Your task to perform on an android device: find which apps use the phone's location Image 0: 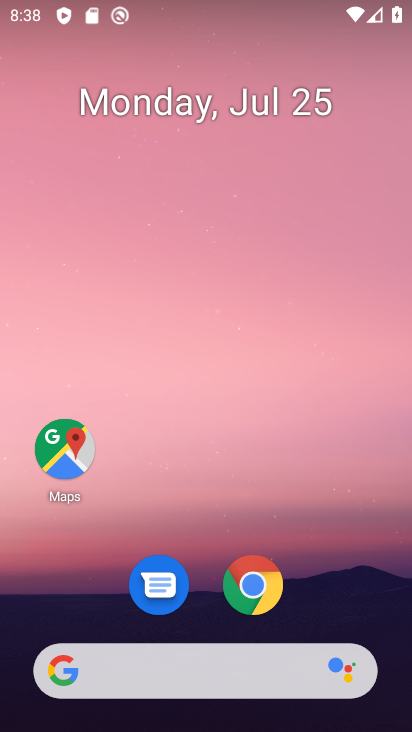
Step 0: press home button
Your task to perform on an android device: find which apps use the phone's location Image 1: 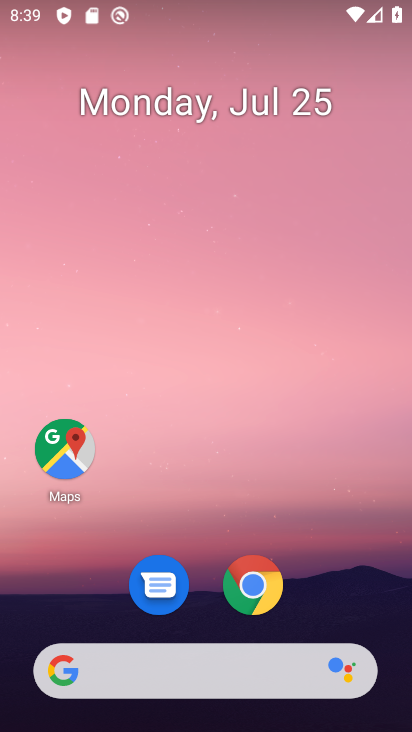
Step 1: drag from (247, 619) to (388, 179)
Your task to perform on an android device: find which apps use the phone's location Image 2: 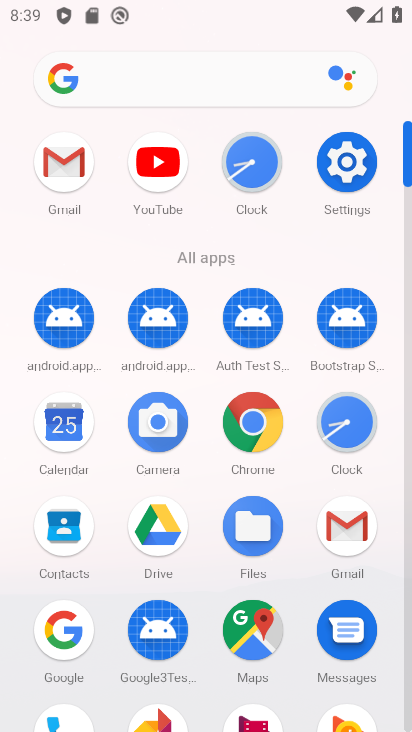
Step 2: click (348, 165)
Your task to perform on an android device: find which apps use the phone's location Image 3: 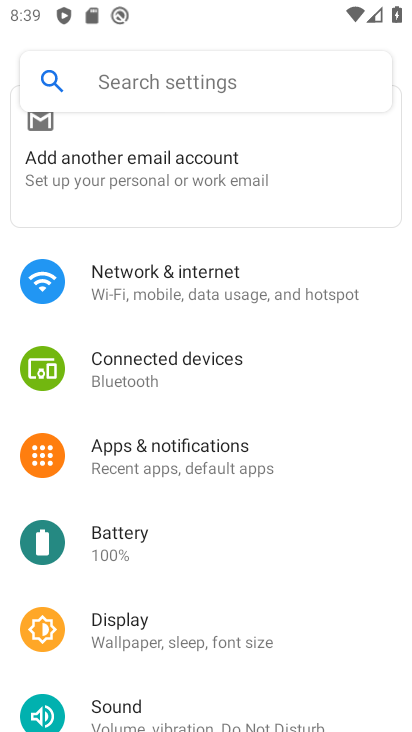
Step 3: drag from (261, 595) to (356, 246)
Your task to perform on an android device: find which apps use the phone's location Image 4: 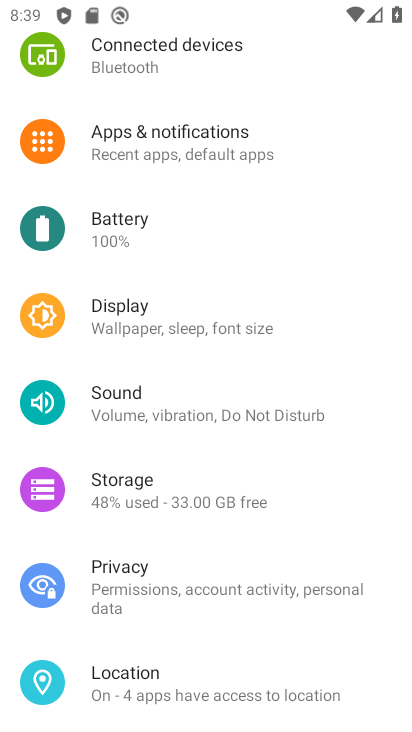
Step 4: drag from (233, 632) to (323, 200)
Your task to perform on an android device: find which apps use the phone's location Image 5: 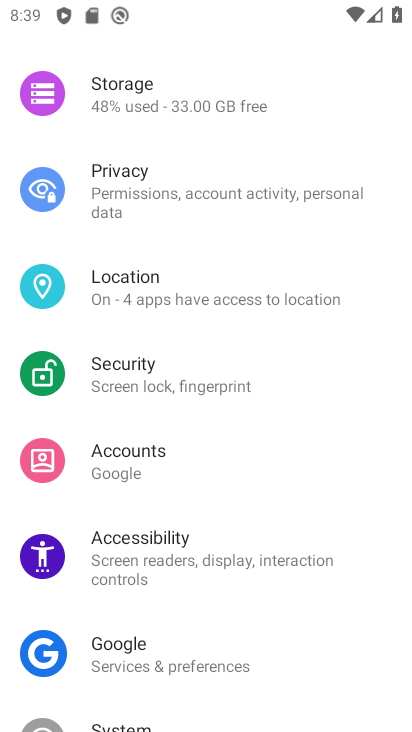
Step 5: click (148, 287)
Your task to perform on an android device: find which apps use the phone's location Image 6: 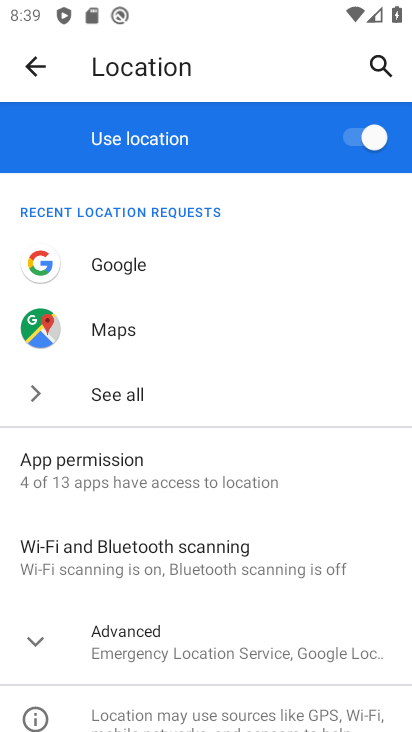
Step 6: click (105, 457)
Your task to perform on an android device: find which apps use the phone's location Image 7: 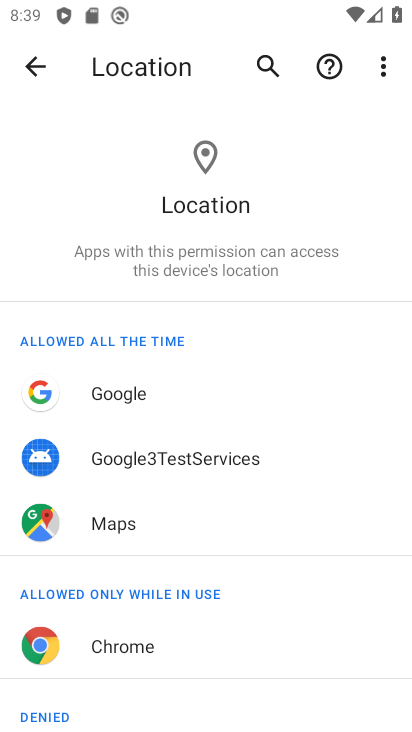
Step 7: drag from (203, 652) to (312, 210)
Your task to perform on an android device: find which apps use the phone's location Image 8: 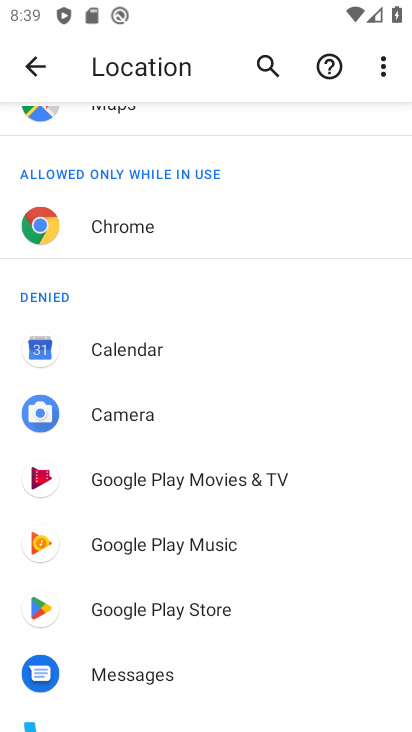
Step 8: drag from (243, 674) to (291, 312)
Your task to perform on an android device: find which apps use the phone's location Image 9: 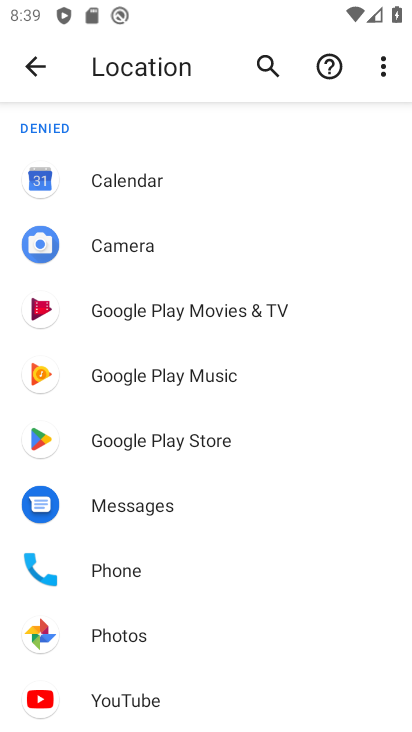
Step 9: click (129, 570)
Your task to perform on an android device: find which apps use the phone's location Image 10: 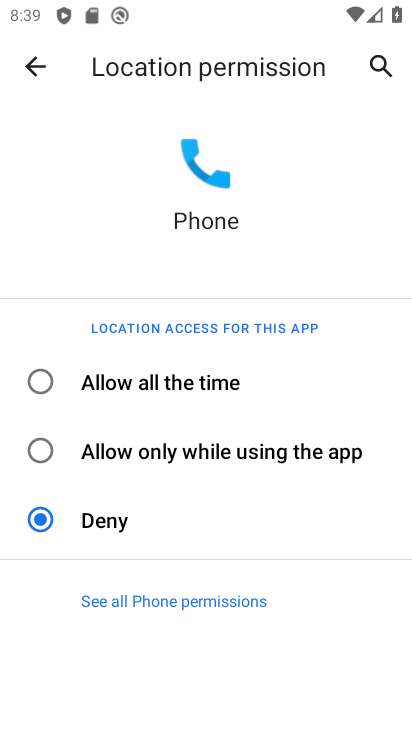
Step 10: task complete